Your task to perform on an android device: check battery use Image 0: 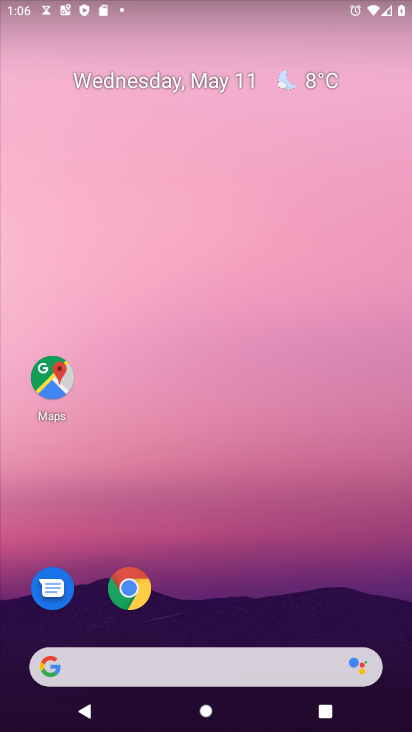
Step 0: drag from (310, 621) to (403, 224)
Your task to perform on an android device: check battery use Image 1: 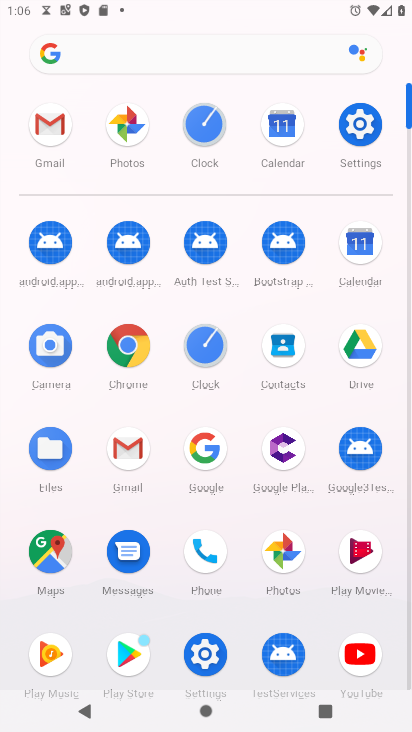
Step 1: click (361, 127)
Your task to perform on an android device: check battery use Image 2: 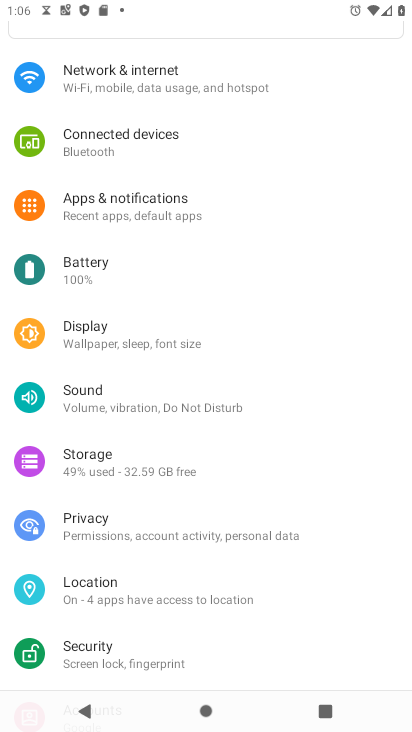
Step 2: click (85, 270)
Your task to perform on an android device: check battery use Image 3: 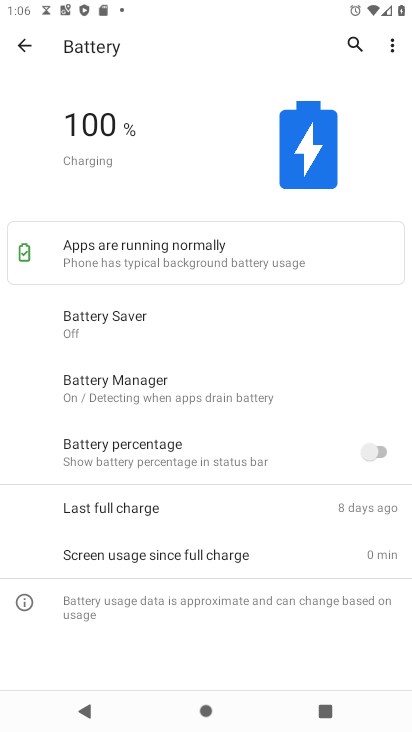
Step 3: click (395, 45)
Your task to perform on an android device: check battery use Image 4: 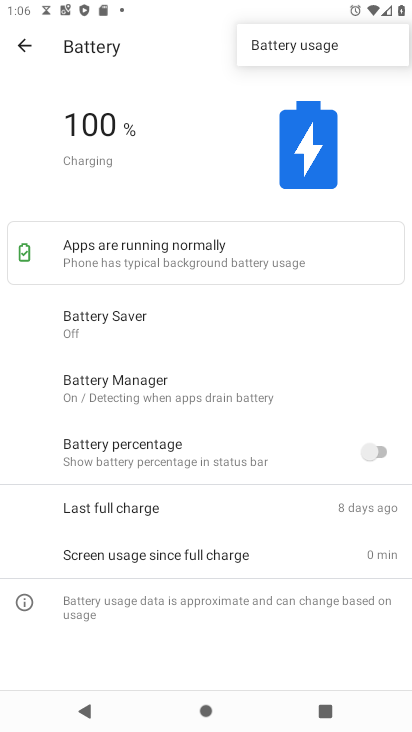
Step 4: click (317, 50)
Your task to perform on an android device: check battery use Image 5: 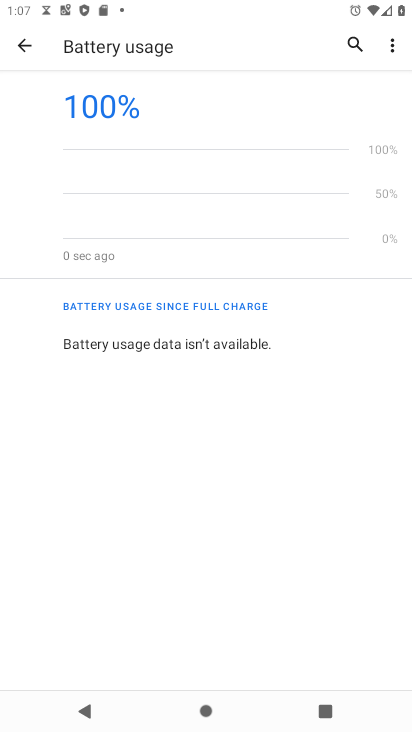
Step 5: task complete